Your task to perform on an android device: Open Chrome and go to settings Image 0: 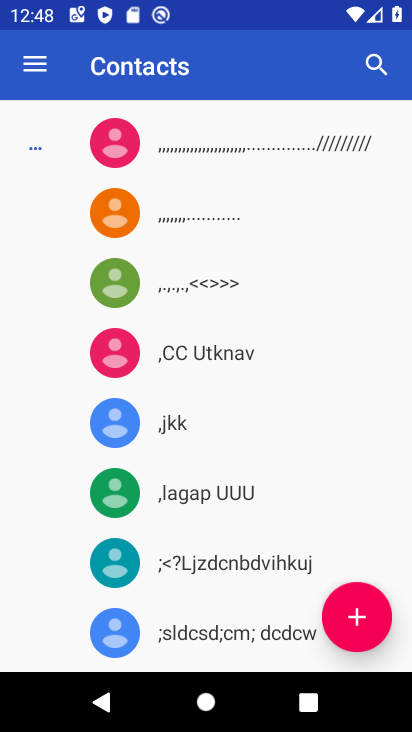
Step 0: press home button
Your task to perform on an android device: Open Chrome and go to settings Image 1: 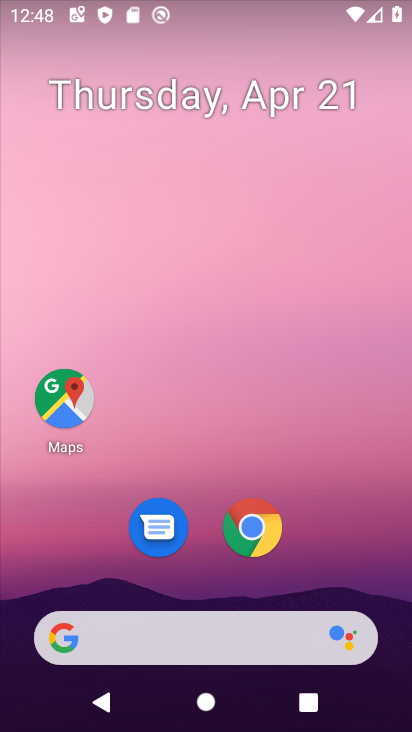
Step 1: drag from (338, 542) to (353, 106)
Your task to perform on an android device: Open Chrome and go to settings Image 2: 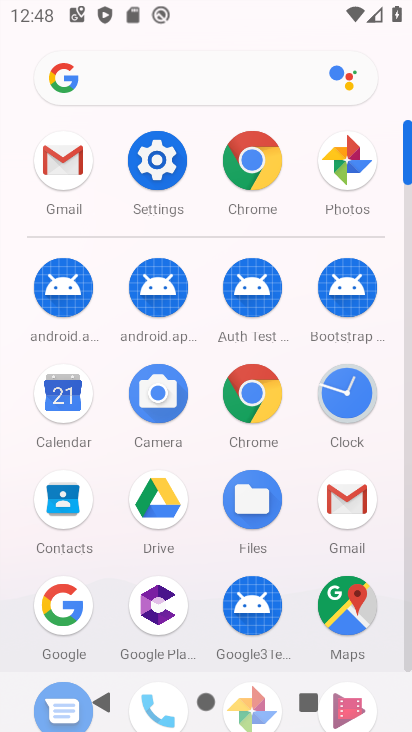
Step 2: click (265, 393)
Your task to perform on an android device: Open Chrome and go to settings Image 3: 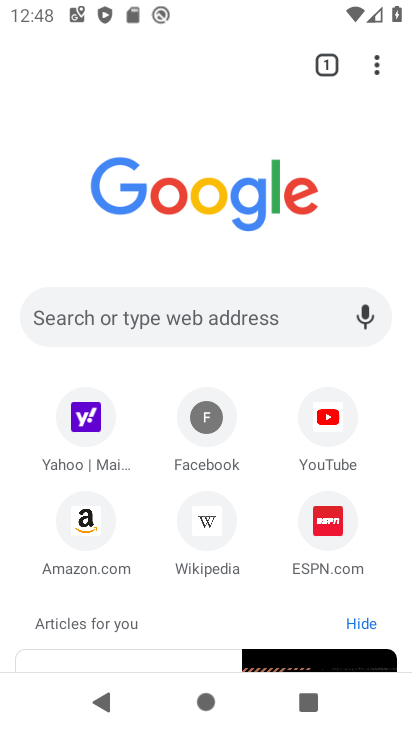
Step 3: click (378, 67)
Your task to perform on an android device: Open Chrome and go to settings Image 4: 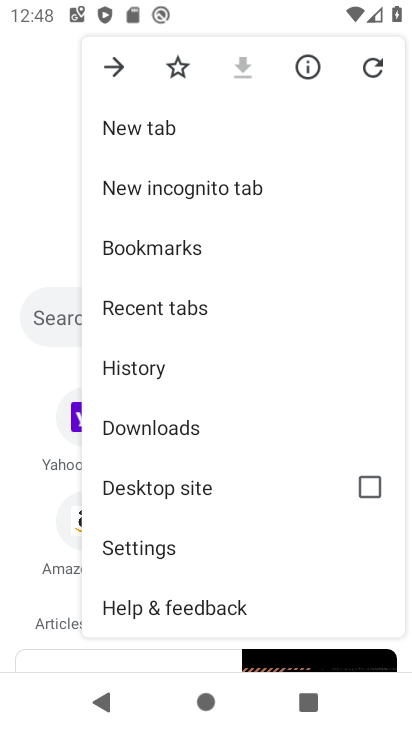
Step 4: click (168, 554)
Your task to perform on an android device: Open Chrome and go to settings Image 5: 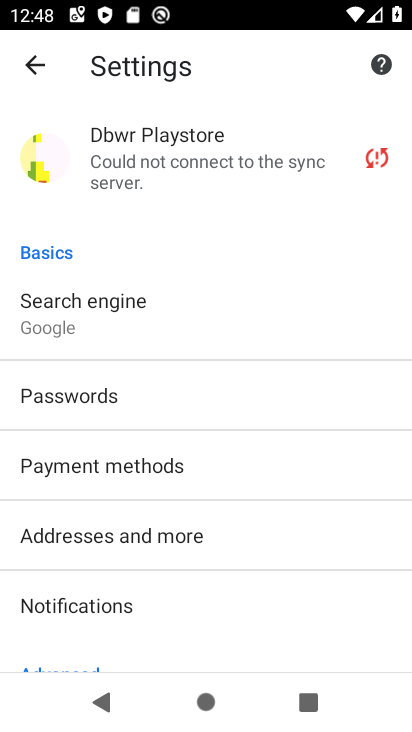
Step 5: task complete